Your task to perform on an android device: Go to network settings Image 0: 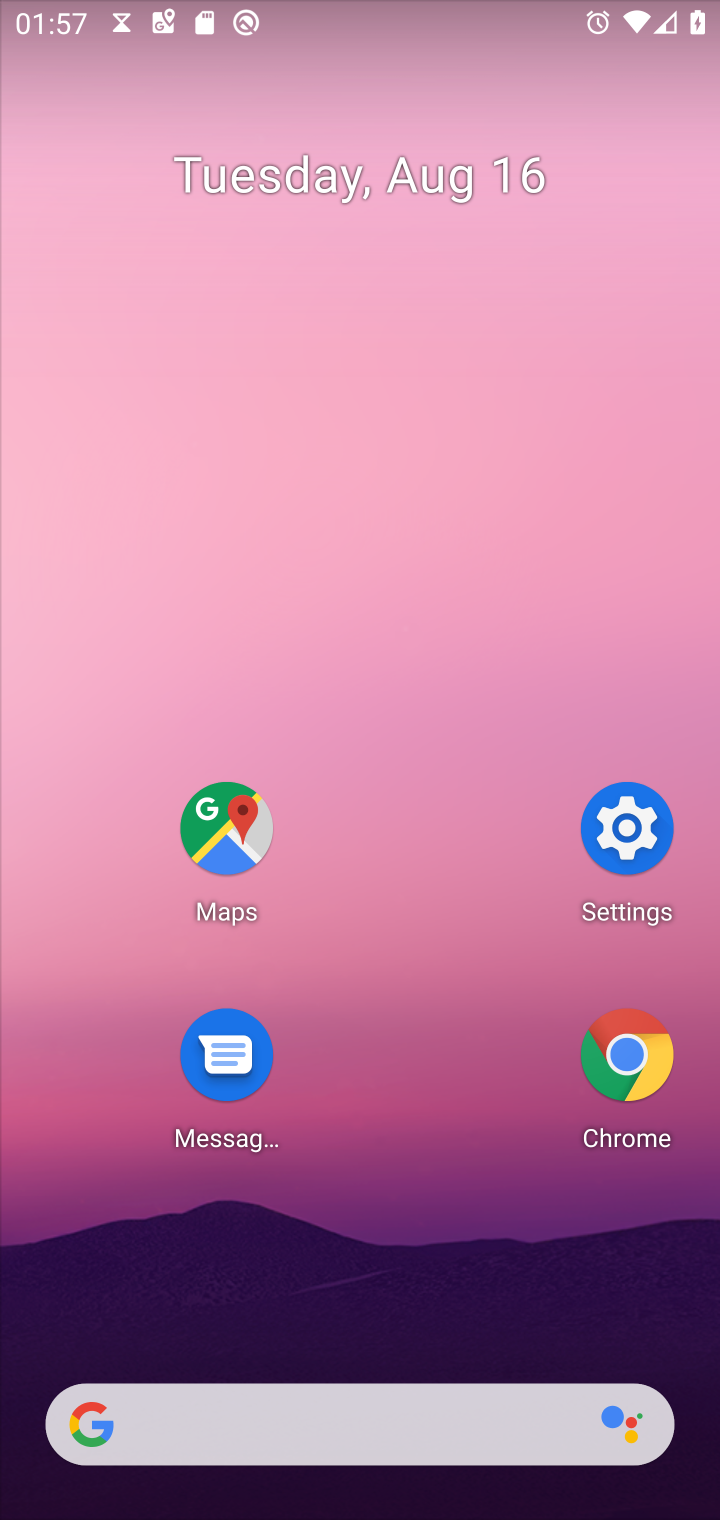
Step 0: press home button
Your task to perform on an android device: Go to network settings Image 1: 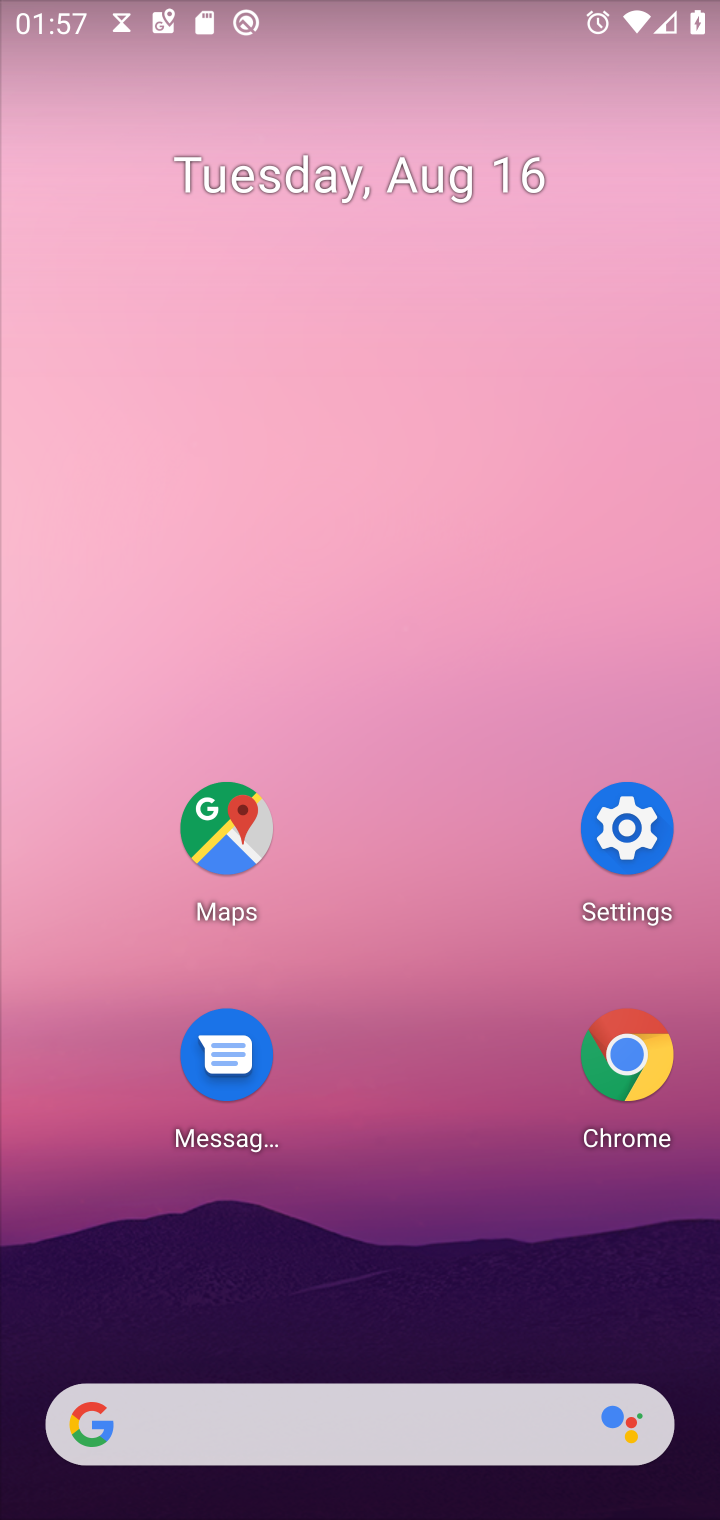
Step 1: click (631, 819)
Your task to perform on an android device: Go to network settings Image 2: 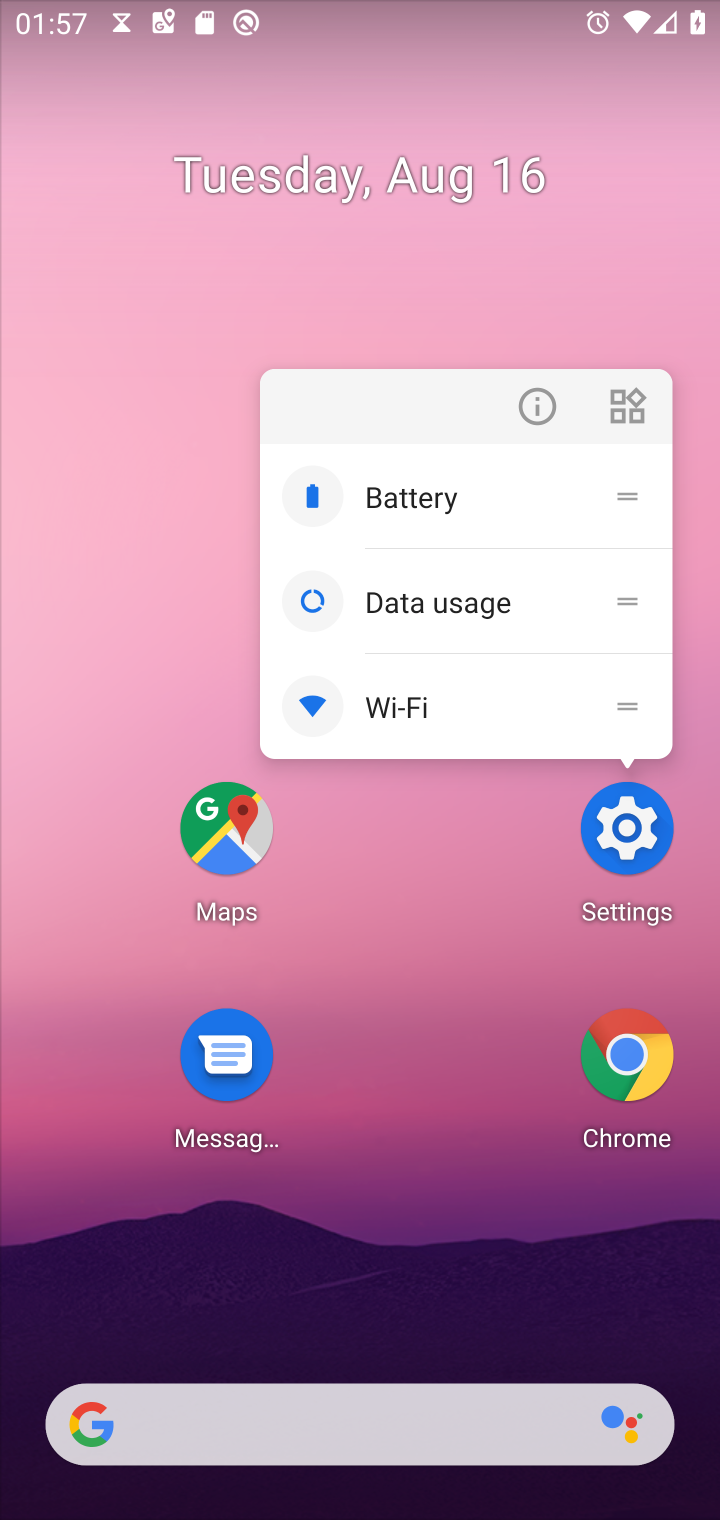
Step 2: click (633, 823)
Your task to perform on an android device: Go to network settings Image 3: 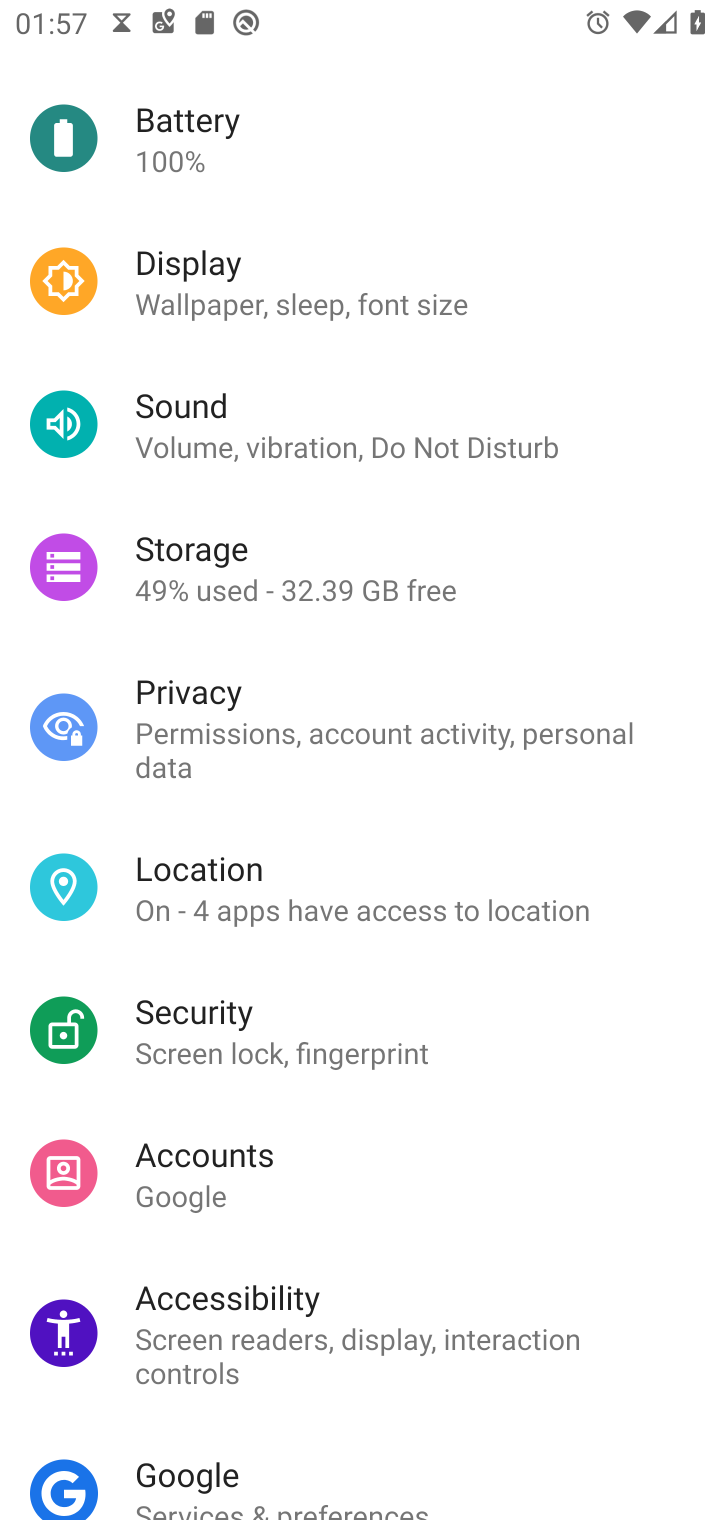
Step 3: drag from (597, 485) to (438, 1398)
Your task to perform on an android device: Go to network settings Image 4: 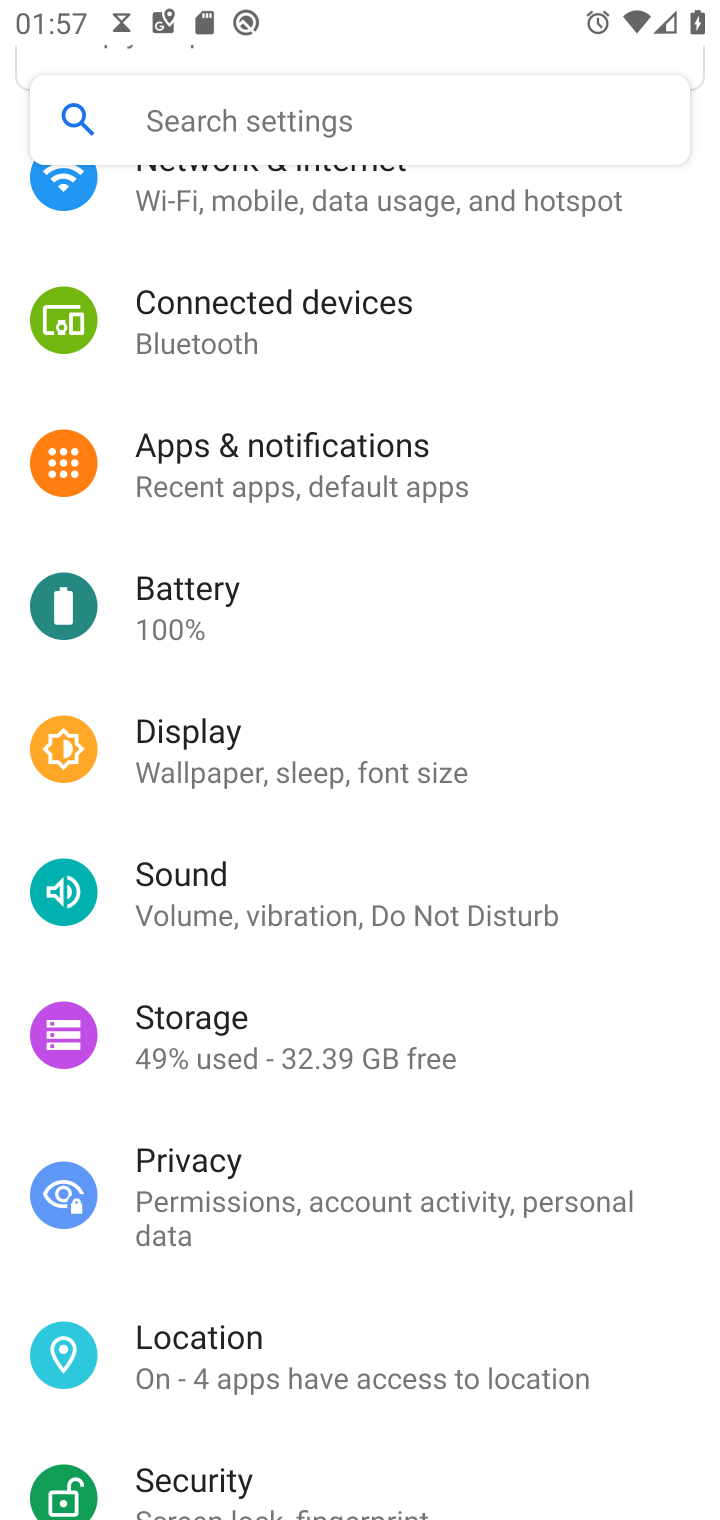
Step 4: drag from (545, 418) to (449, 1480)
Your task to perform on an android device: Go to network settings Image 5: 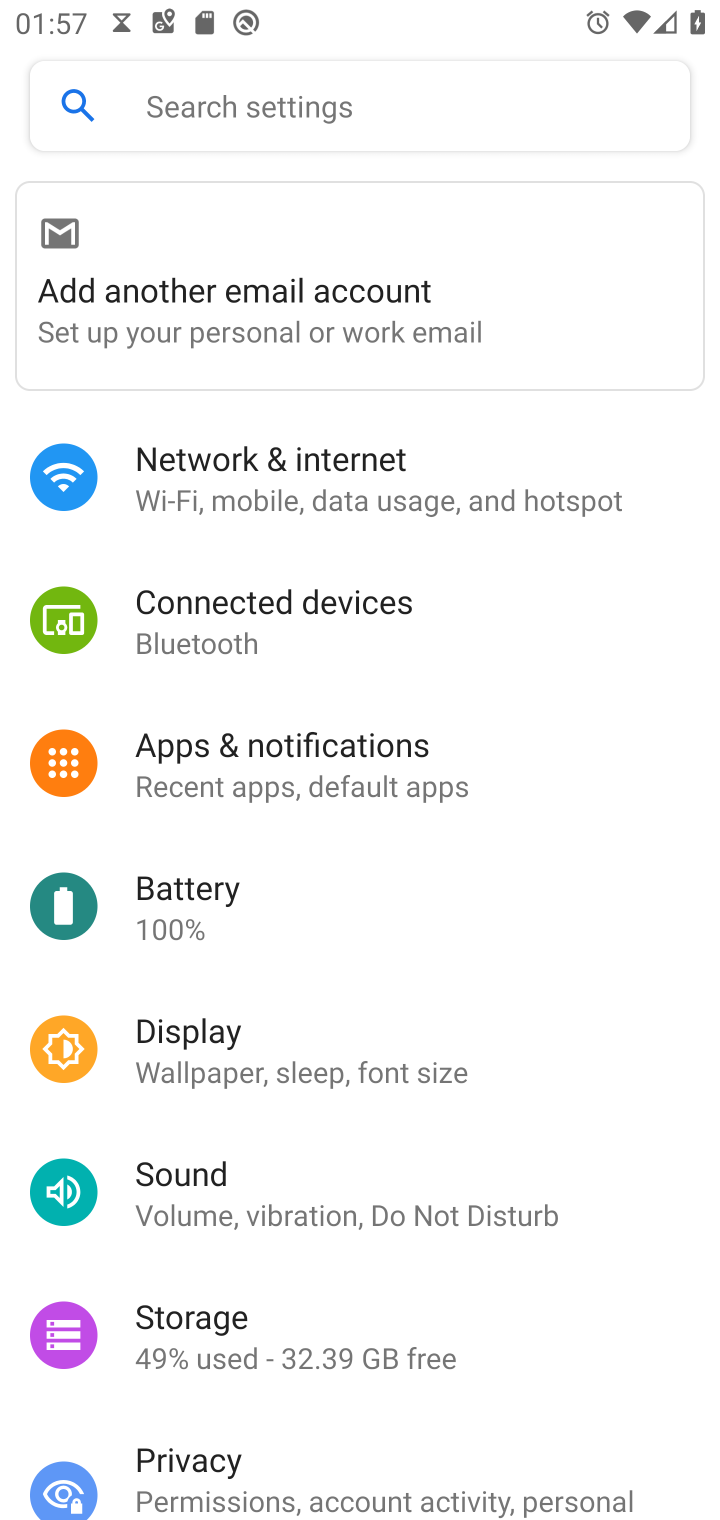
Step 5: click (275, 484)
Your task to perform on an android device: Go to network settings Image 6: 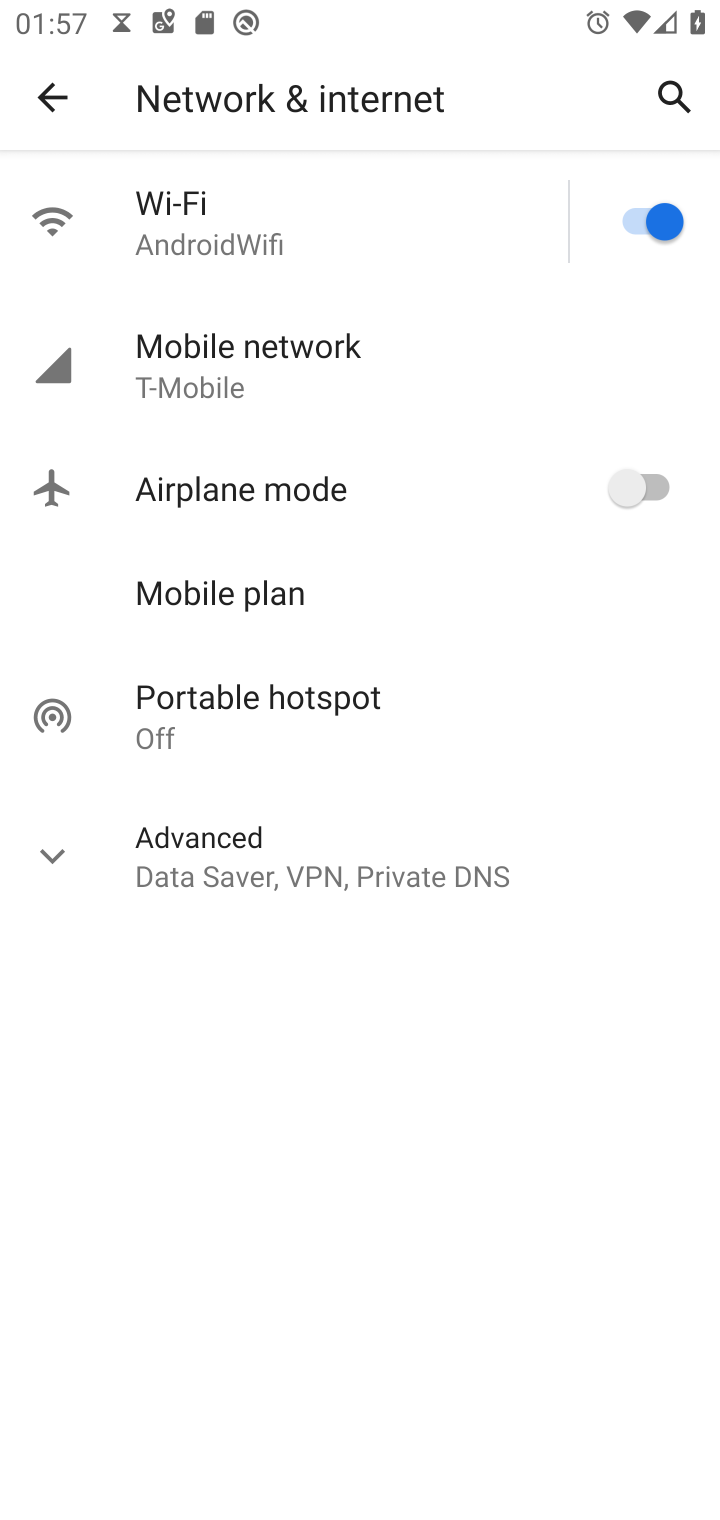
Step 6: click (175, 227)
Your task to perform on an android device: Go to network settings Image 7: 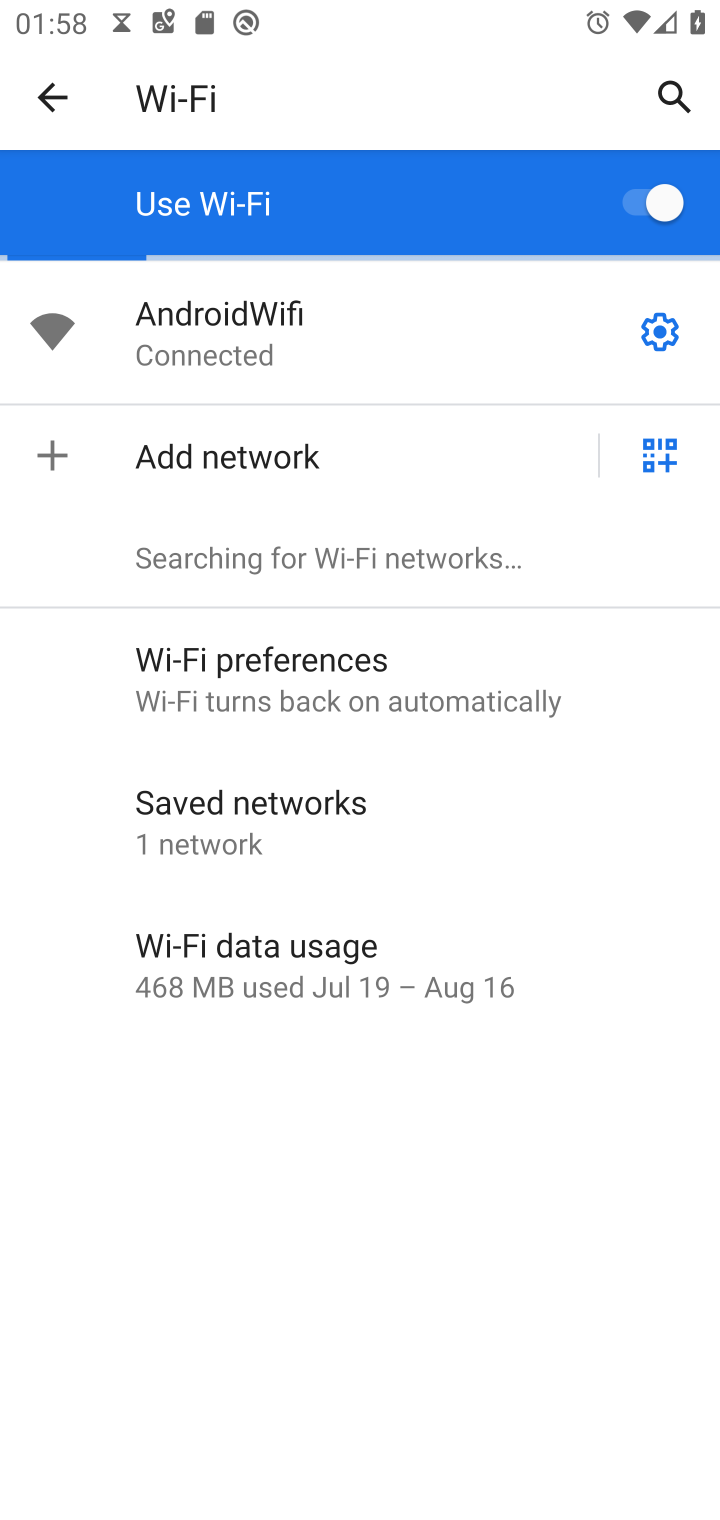
Step 7: task complete